Your task to perform on an android device: Do I have any events tomorrow? Image 0: 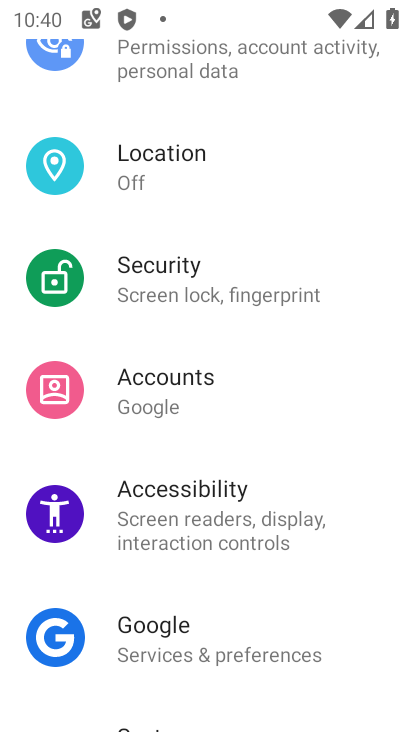
Step 0: press home button
Your task to perform on an android device: Do I have any events tomorrow? Image 1: 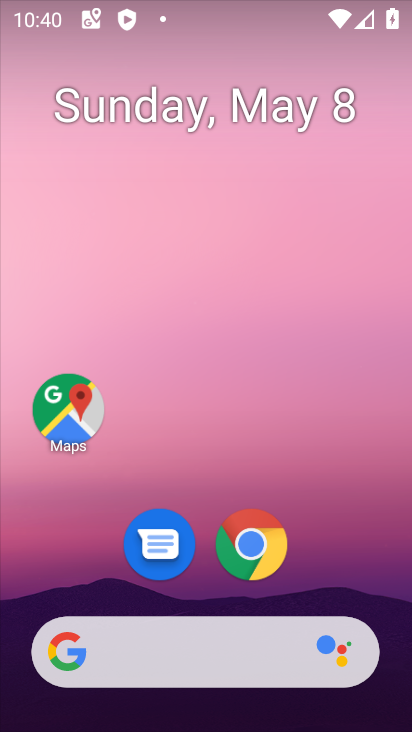
Step 1: drag from (322, 574) to (297, 21)
Your task to perform on an android device: Do I have any events tomorrow? Image 2: 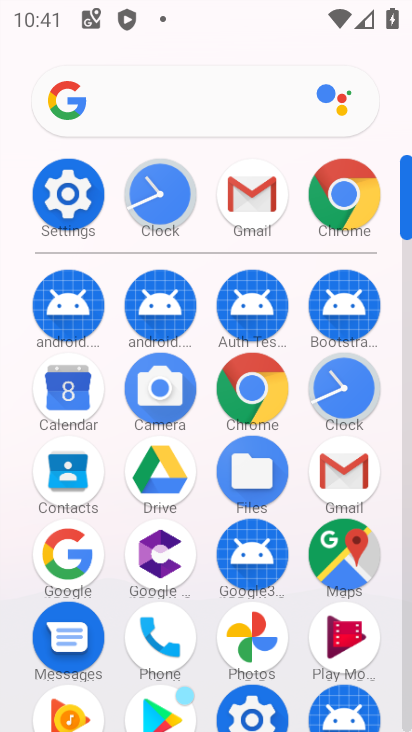
Step 2: click (47, 408)
Your task to perform on an android device: Do I have any events tomorrow? Image 3: 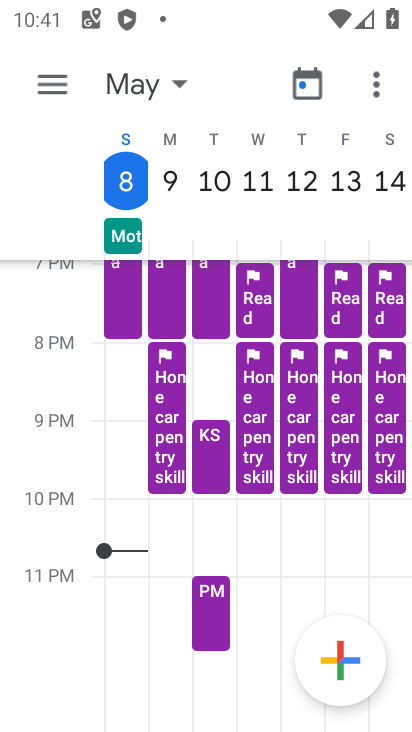
Step 3: task complete